Your task to perform on an android device: turn on javascript in the chrome app Image 0: 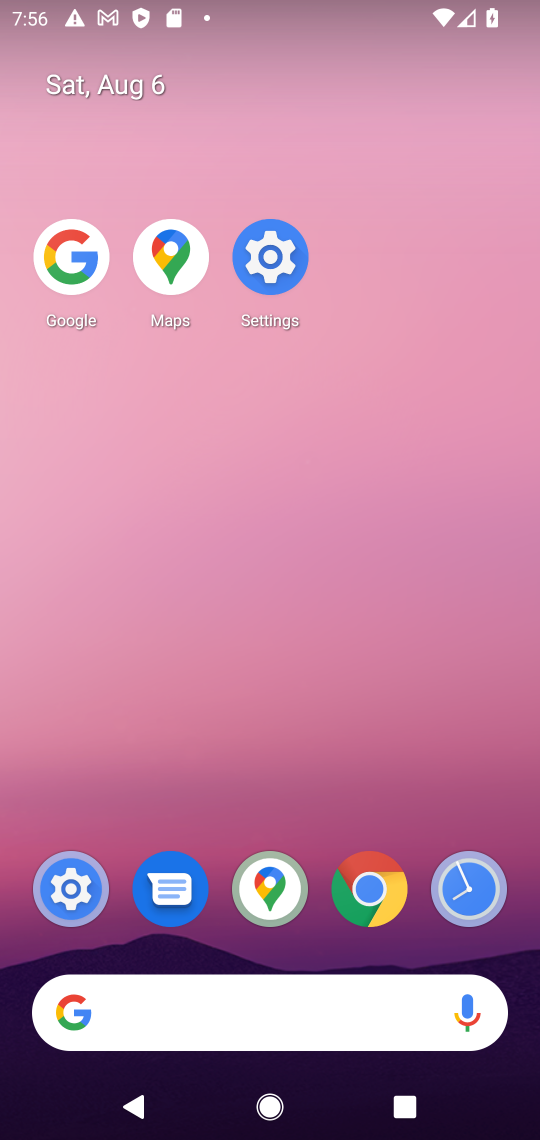
Step 0: click (370, 870)
Your task to perform on an android device: turn on javascript in the chrome app Image 1: 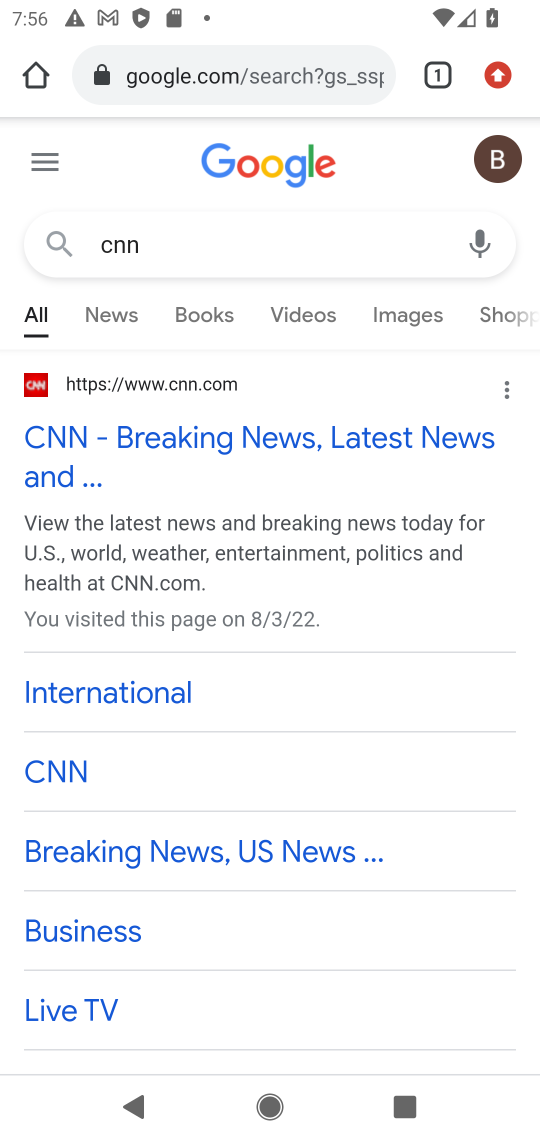
Step 1: click (509, 86)
Your task to perform on an android device: turn on javascript in the chrome app Image 2: 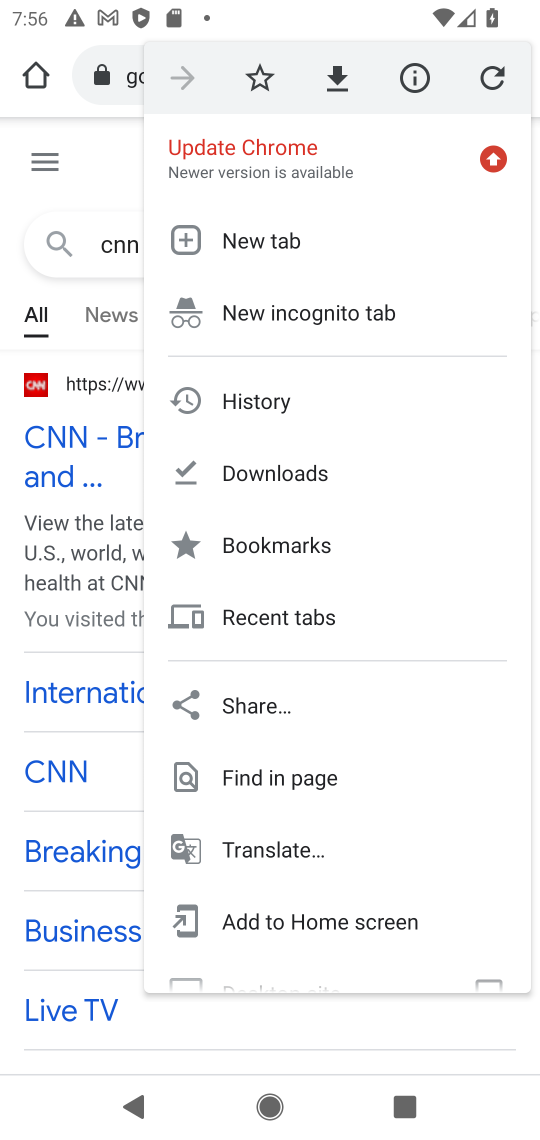
Step 2: drag from (340, 760) to (462, 453)
Your task to perform on an android device: turn on javascript in the chrome app Image 3: 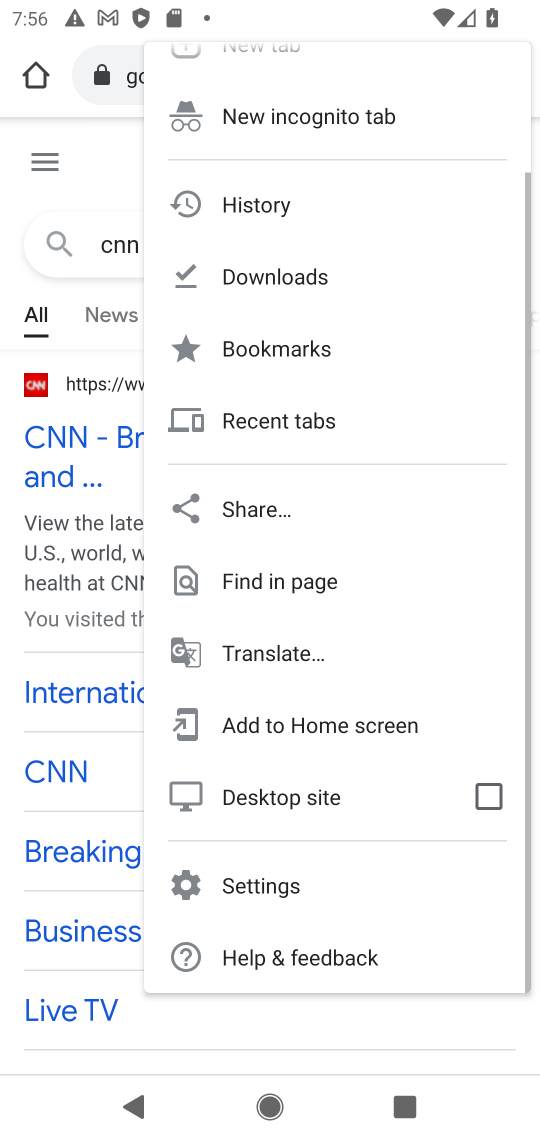
Step 3: click (302, 894)
Your task to perform on an android device: turn on javascript in the chrome app Image 4: 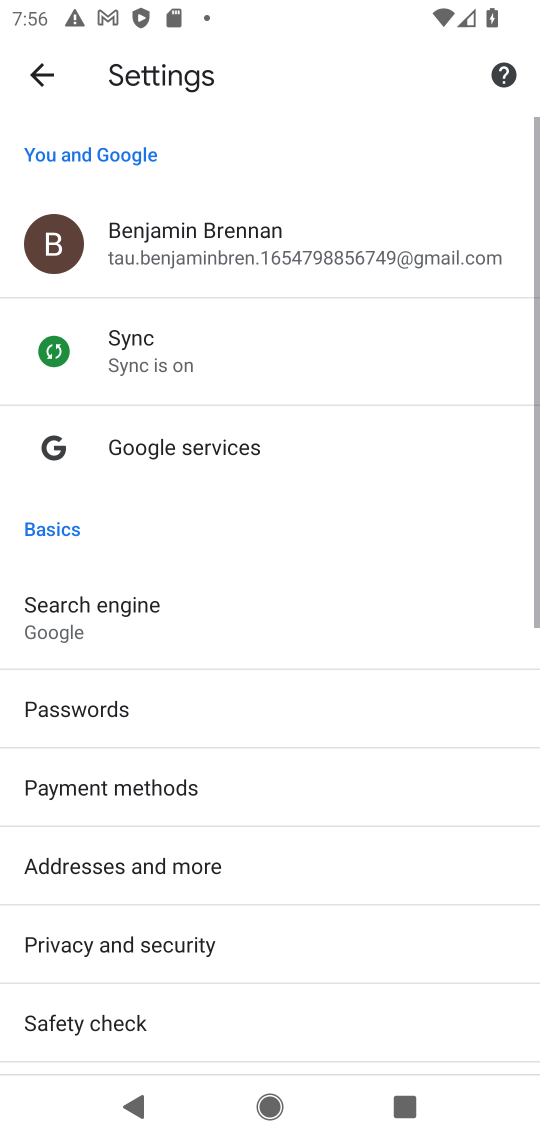
Step 4: drag from (302, 894) to (221, 410)
Your task to perform on an android device: turn on javascript in the chrome app Image 5: 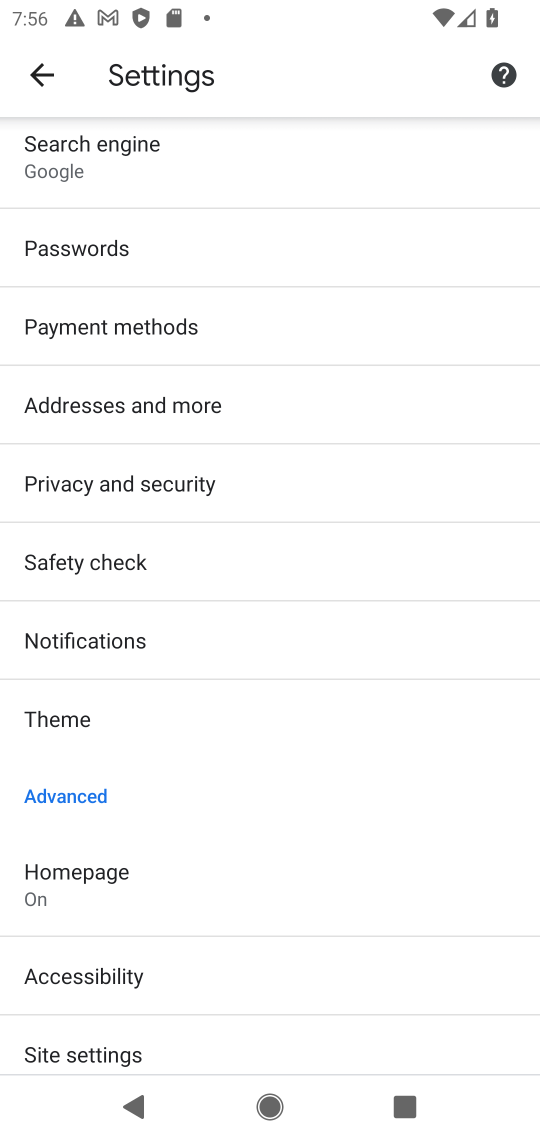
Step 5: drag from (157, 642) to (276, 373)
Your task to perform on an android device: turn on javascript in the chrome app Image 6: 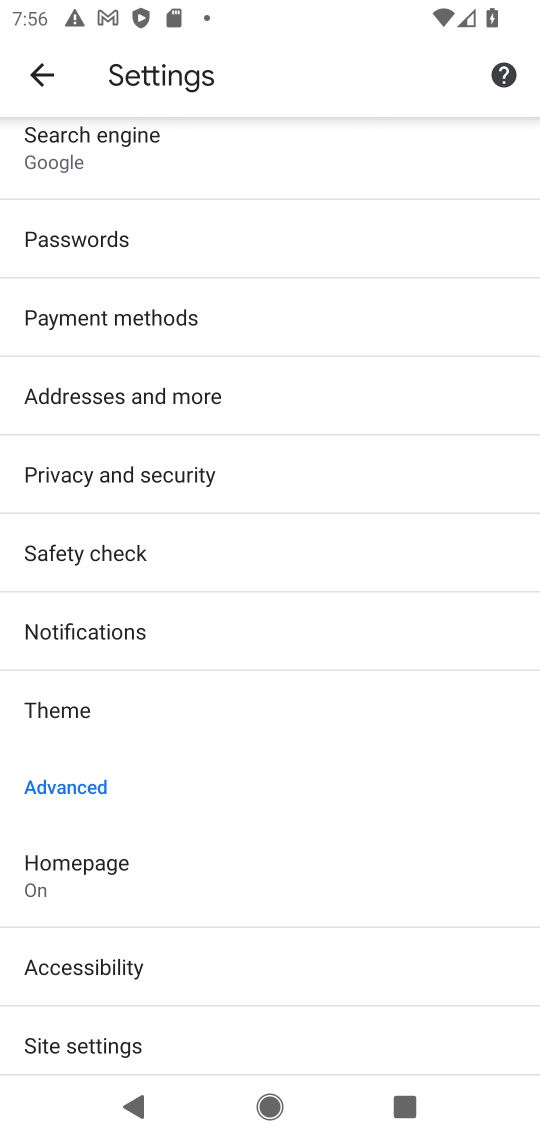
Step 6: drag from (223, 908) to (289, 564)
Your task to perform on an android device: turn on javascript in the chrome app Image 7: 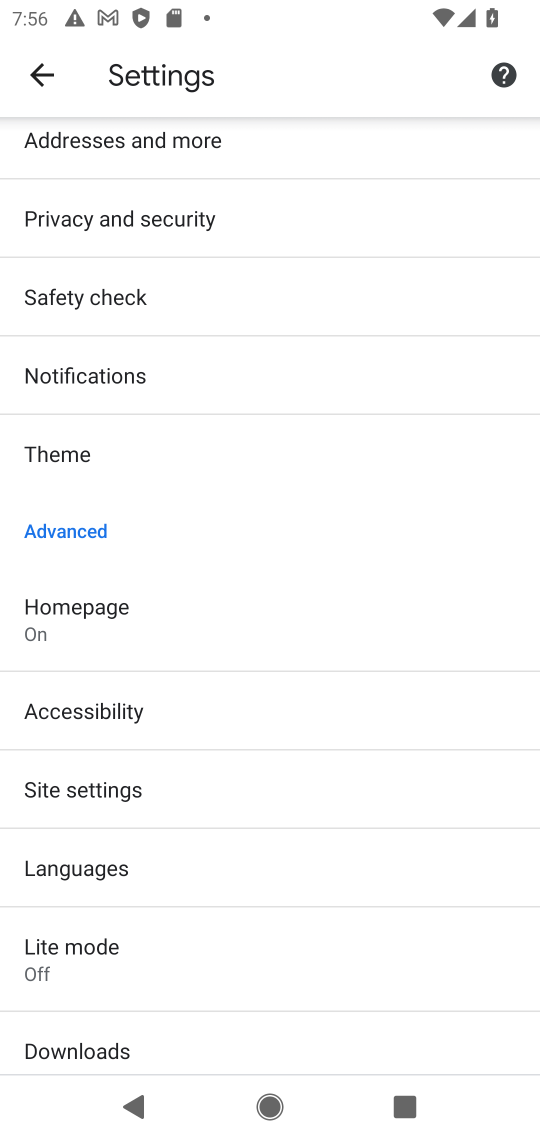
Step 7: click (236, 792)
Your task to perform on an android device: turn on javascript in the chrome app Image 8: 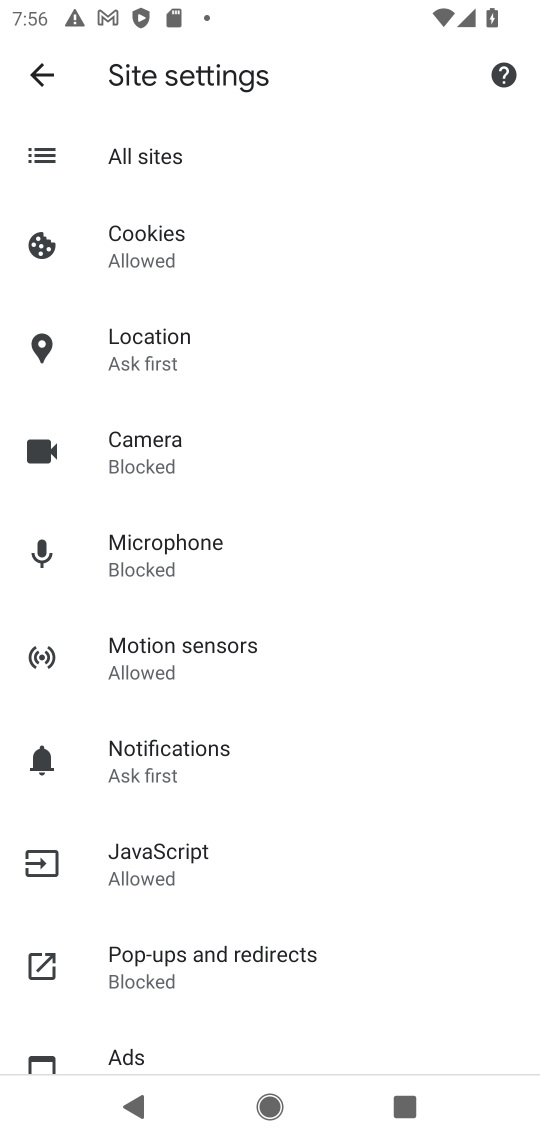
Step 8: click (211, 856)
Your task to perform on an android device: turn on javascript in the chrome app Image 9: 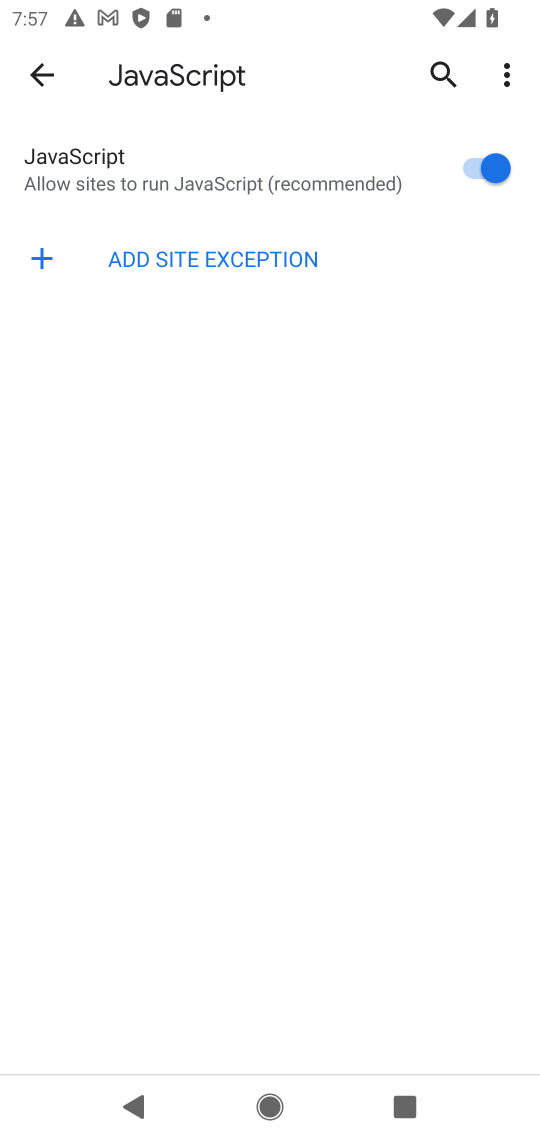
Step 9: task complete